Your task to perform on an android device: What's the weather going to be tomorrow? Image 0: 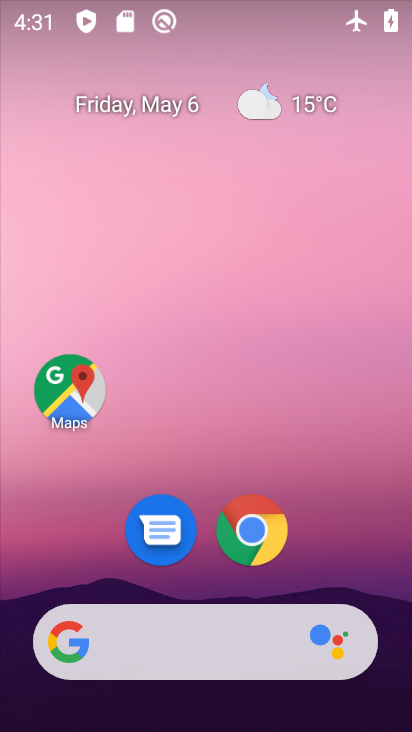
Step 0: drag from (363, 559) to (271, 91)
Your task to perform on an android device: What's the weather going to be tomorrow? Image 1: 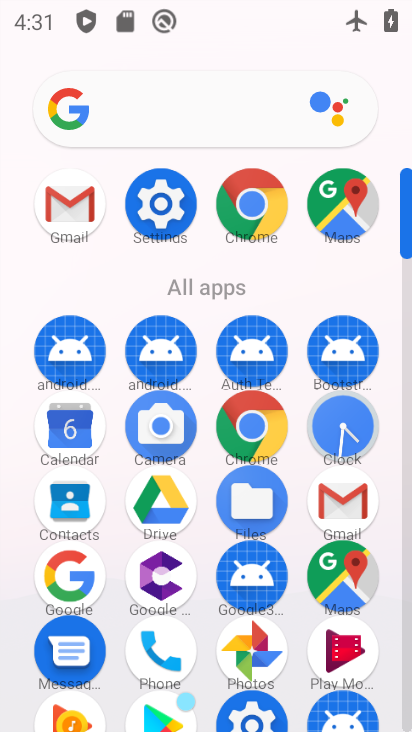
Step 1: press home button
Your task to perform on an android device: What's the weather going to be tomorrow? Image 2: 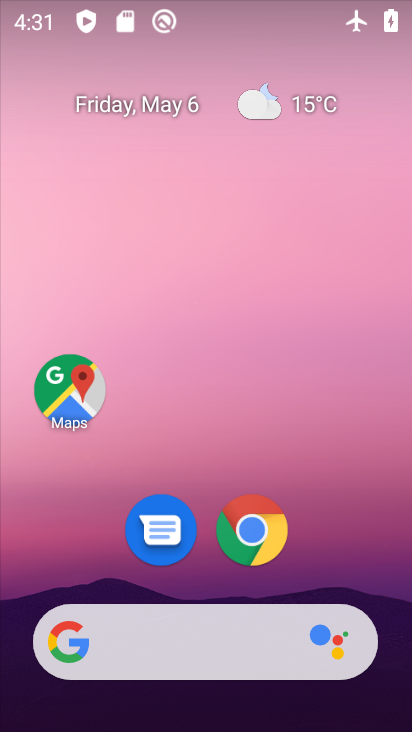
Step 2: click (295, 111)
Your task to perform on an android device: What's the weather going to be tomorrow? Image 3: 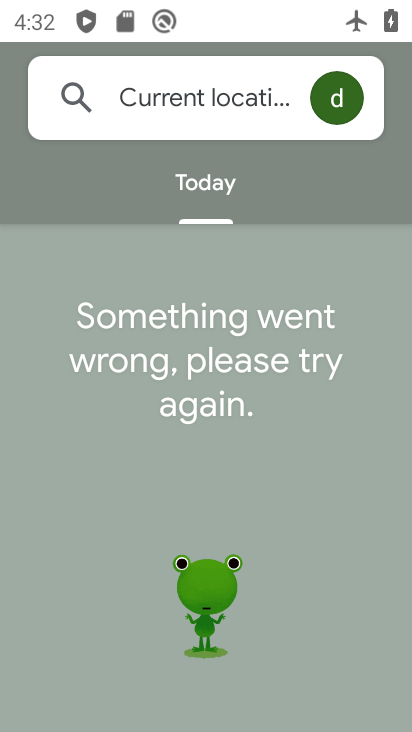
Step 3: task complete